Your task to perform on an android device: turn on bluetooth scan Image 0: 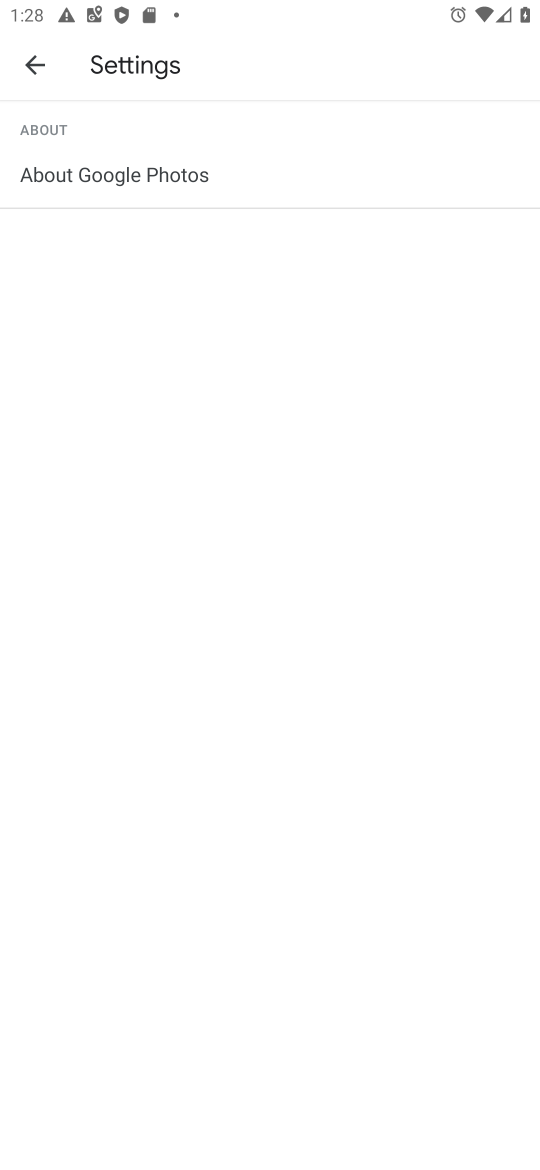
Step 0: press home button
Your task to perform on an android device: turn on bluetooth scan Image 1: 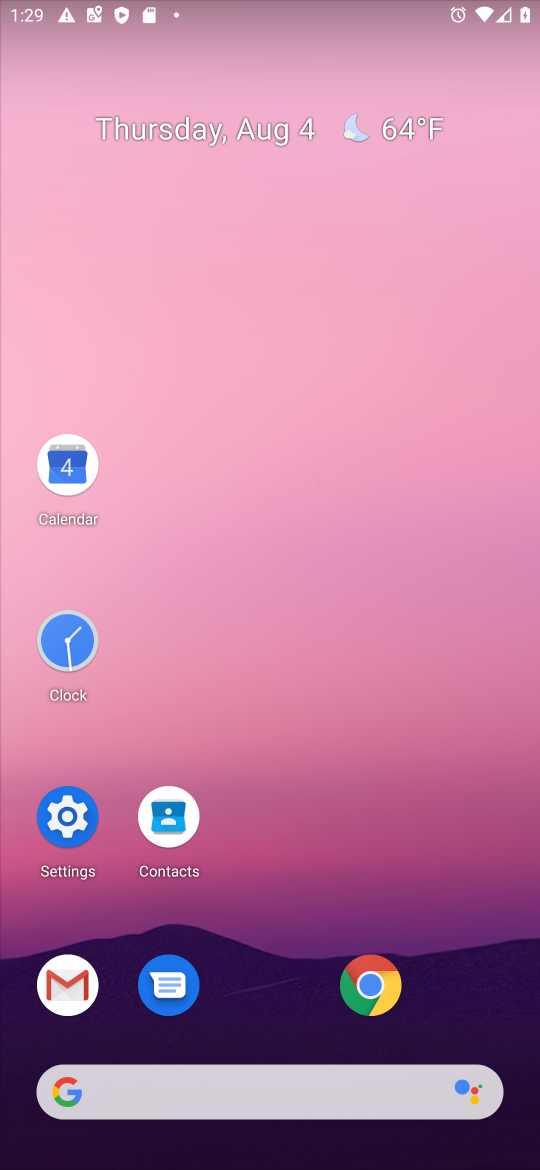
Step 1: click (64, 819)
Your task to perform on an android device: turn on bluetooth scan Image 2: 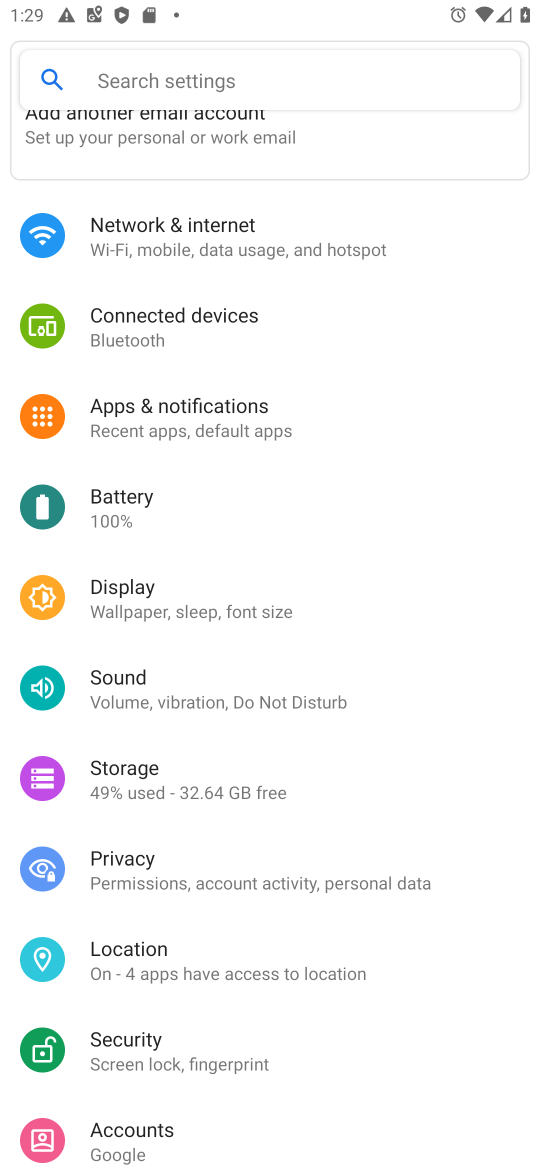
Step 2: click (151, 952)
Your task to perform on an android device: turn on bluetooth scan Image 3: 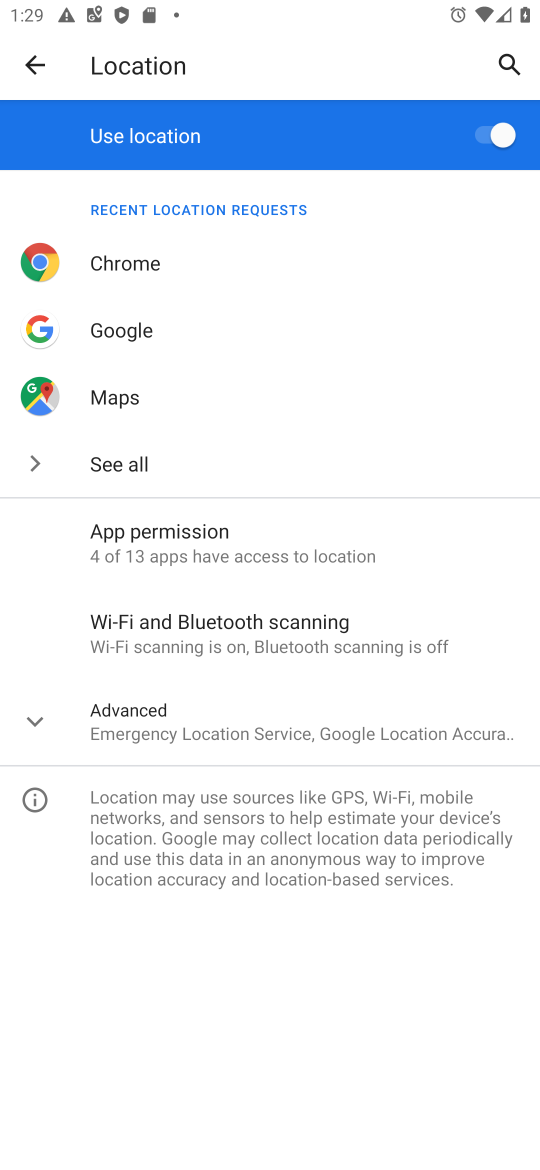
Step 3: click (59, 724)
Your task to perform on an android device: turn on bluetooth scan Image 4: 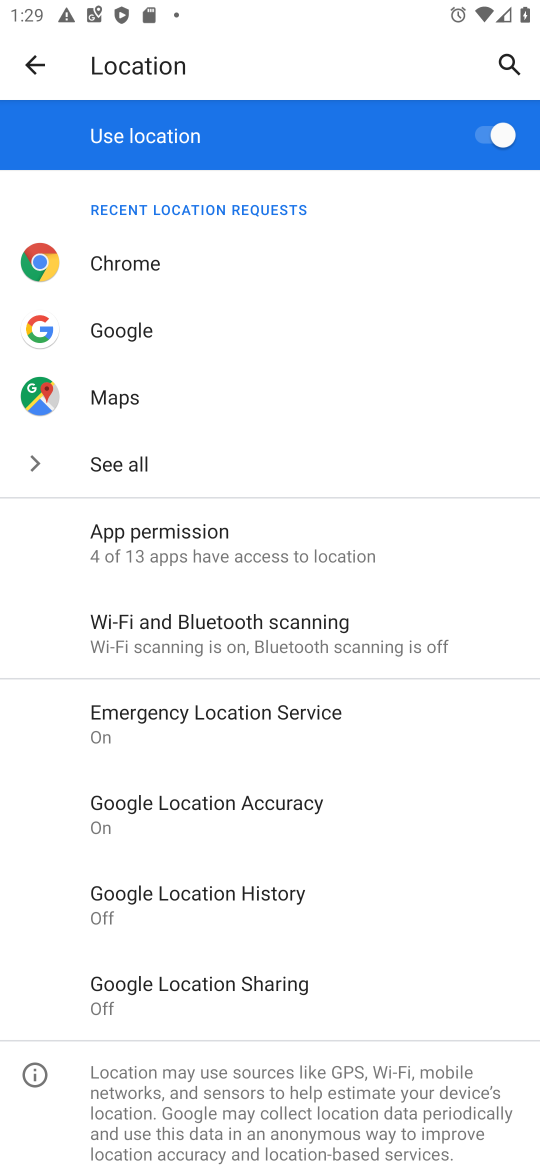
Step 4: click (179, 617)
Your task to perform on an android device: turn on bluetooth scan Image 5: 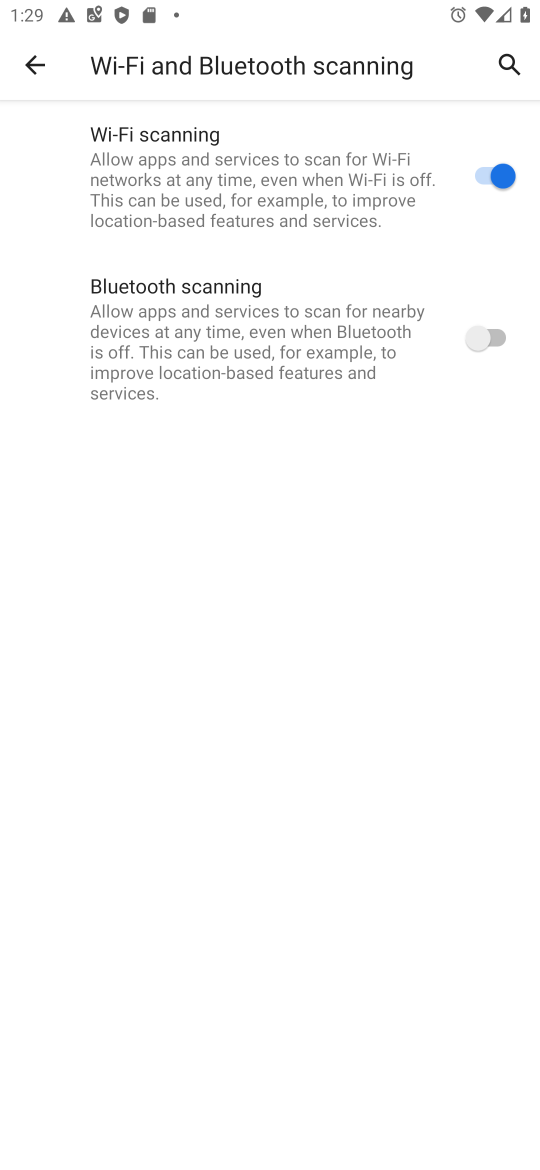
Step 5: click (479, 350)
Your task to perform on an android device: turn on bluetooth scan Image 6: 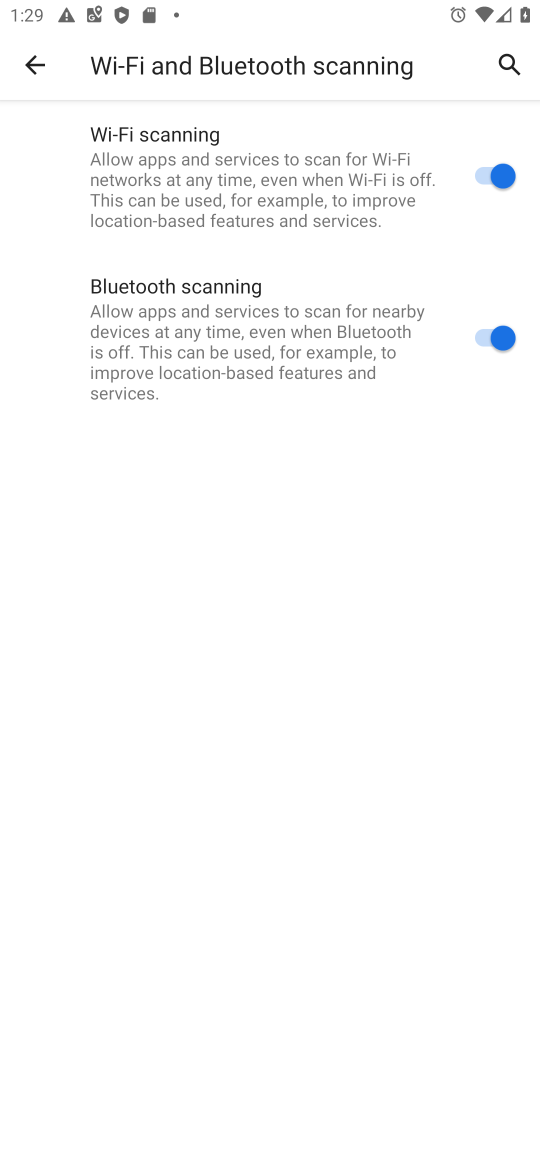
Step 6: task complete